Your task to perform on an android device: create a new album in the google photos Image 0: 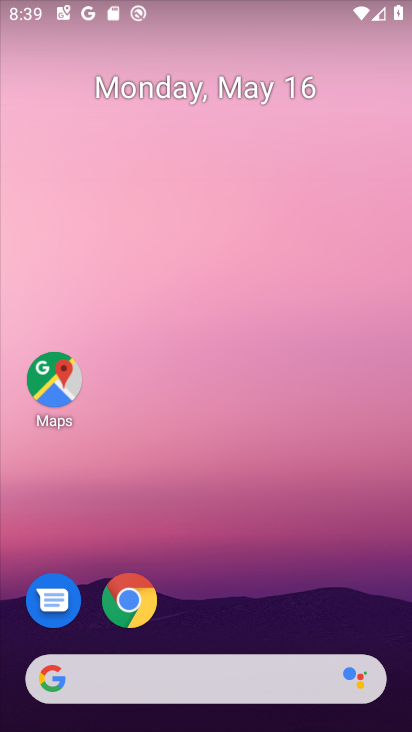
Step 0: drag from (302, 612) to (199, 2)
Your task to perform on an android device: create a new album in the google photos Image 1: 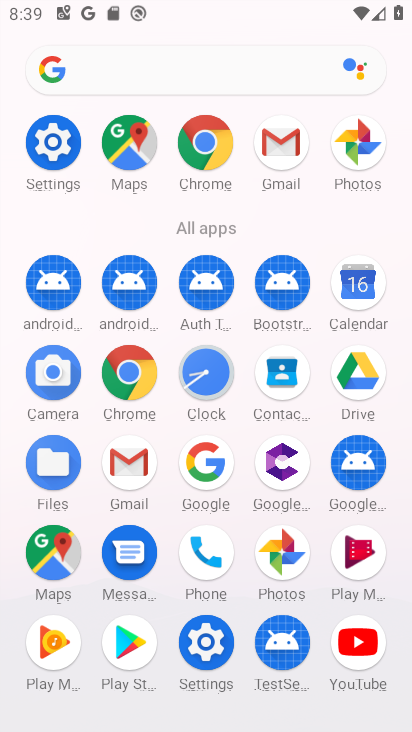
Step 1: click (278, 544)
Your task to perform on an android device: create a new album in the google photos Image 2: 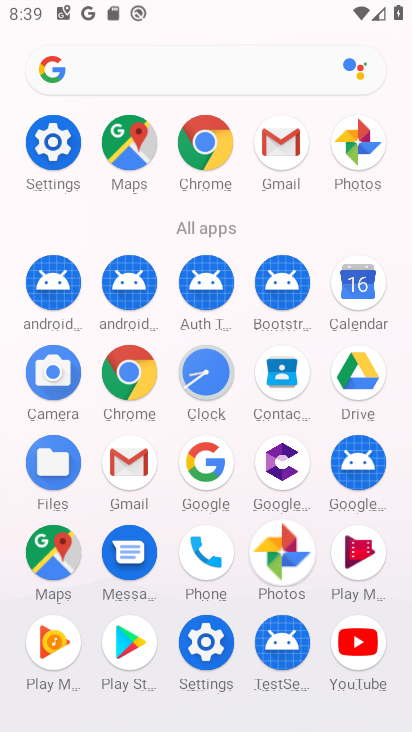
Step 2: click (278, 544)
Your task to perform on an android device: create a new album in the google photos Image 3: 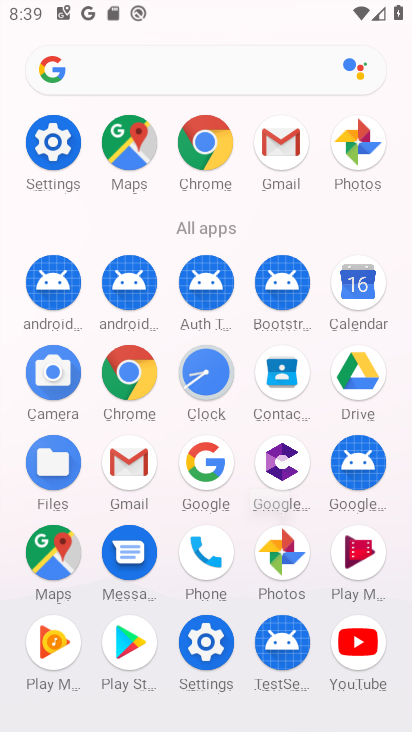
Step 3: click (279, 545)
Your task to perform on an android device: create a new album in the google photos Image 4: 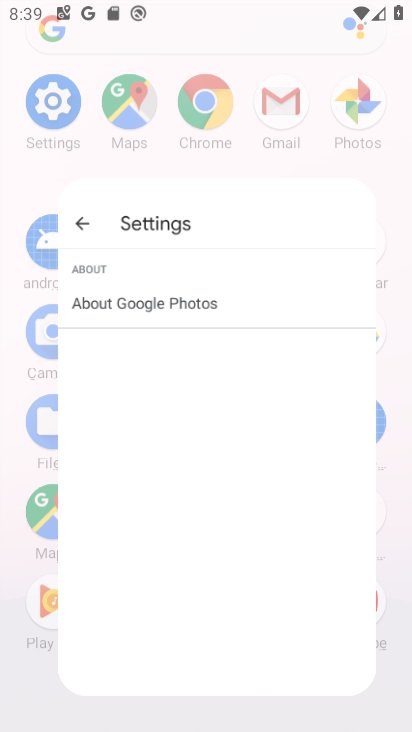
Step 4: click (279, 545)
Your task to perform on an android device: create a new album in the google photos Image 5: 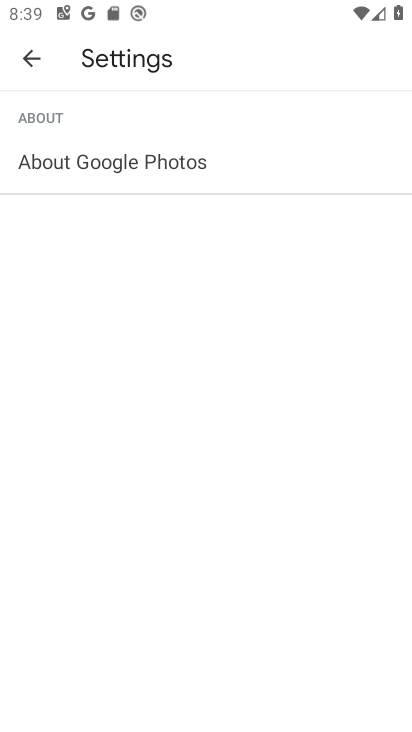
Step 5: click (25, 50)
Your task to perform on an android device: create a new album in the google photos Image 6: 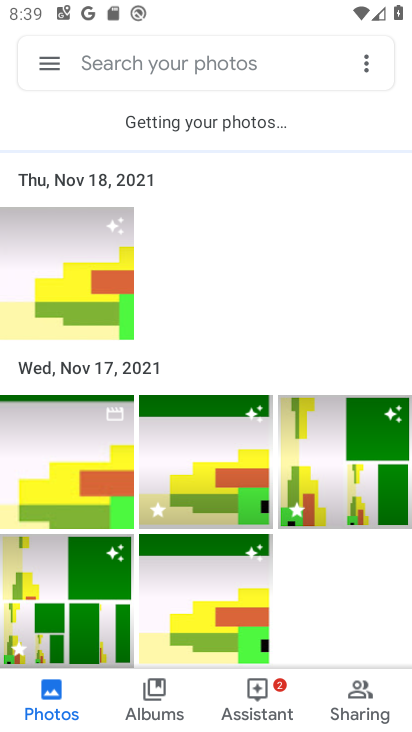
Step 6: click (366, 68)
Your task to perform on an android device: create a new album in the google photos Image 7: 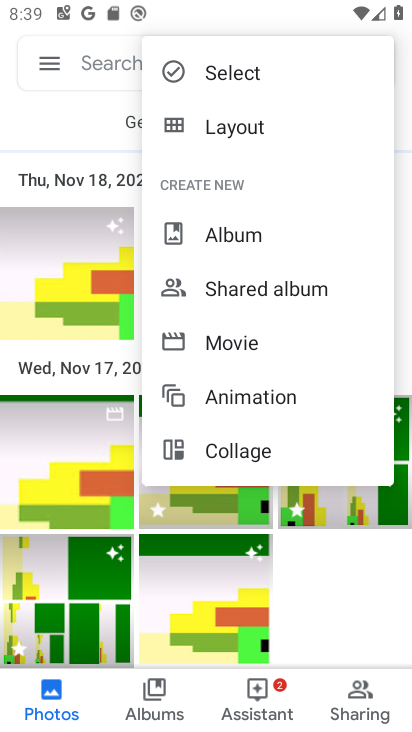
Step 7: click (233, 236)
Your task to perform on an android device: create a new album in the google photos Image 8: 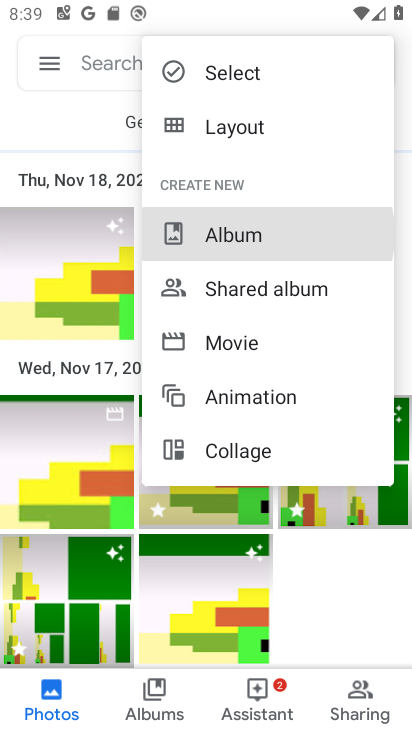
Step 8: click (234, 237)
Your task to perform on an android device: create a new album in the google photos Image 9: 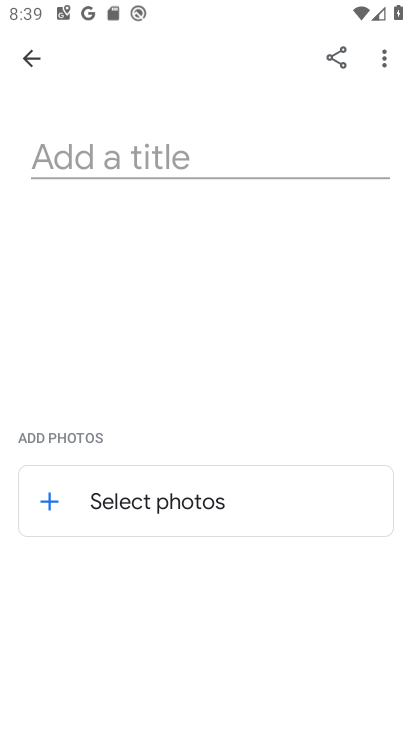
Step 9: click (75, 151)
Your task to perform on an android device: create a new album in the google photos Image 10: 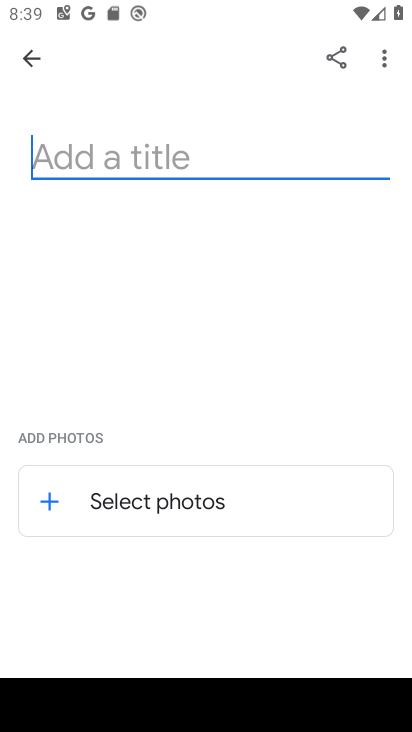
Step 10: type "bharat"
Your task to perform on an android device: create a new album in the google photos Image 11: 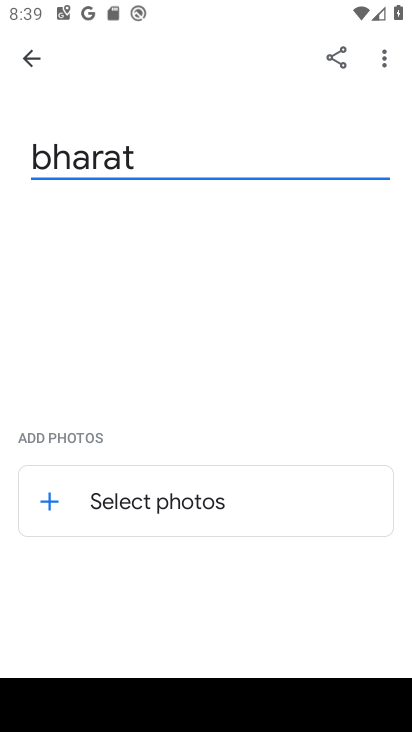
Step 11: click (103, 520)
Your task to perform on an android device: create a new album in the google photos Image 12: 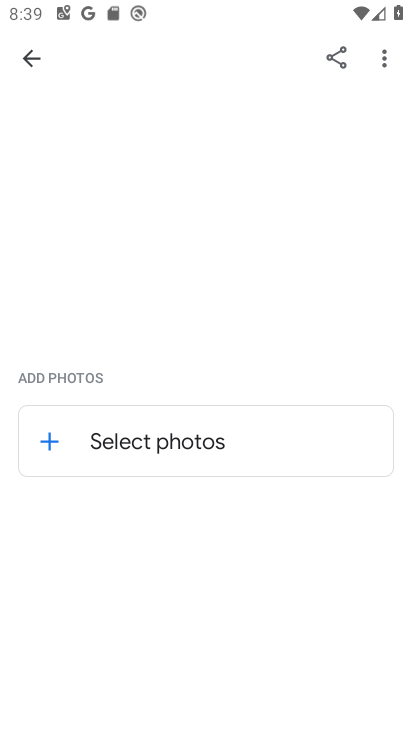
Step 12: click (136, 437)
Your task to perform on an android device: create a new album in the google photos Image 13: 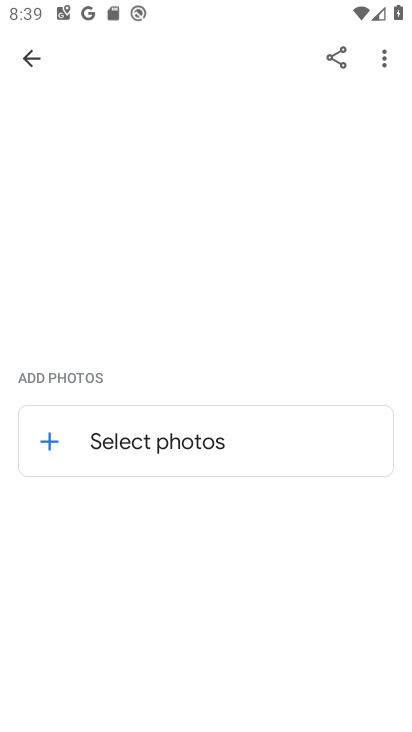
Step 13: click (136, 437)
Your task to perform on an android device: create a new album in the google photos Image 14: 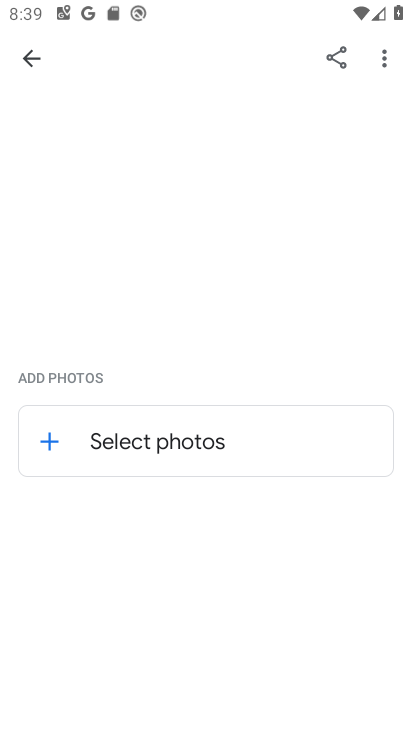
Step 14: click (136, 437)
Your task to perform on an android device: create a new album in the google photos Image 15: 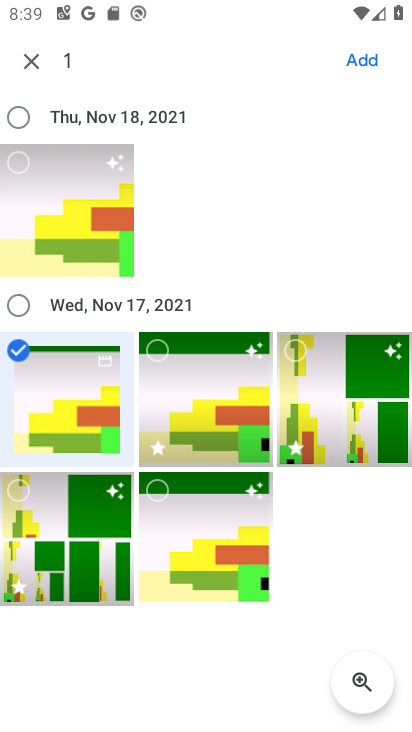
Step 15: click (163, 346)
Your task to perform on an android device: create a new album in the google photos Image 16: 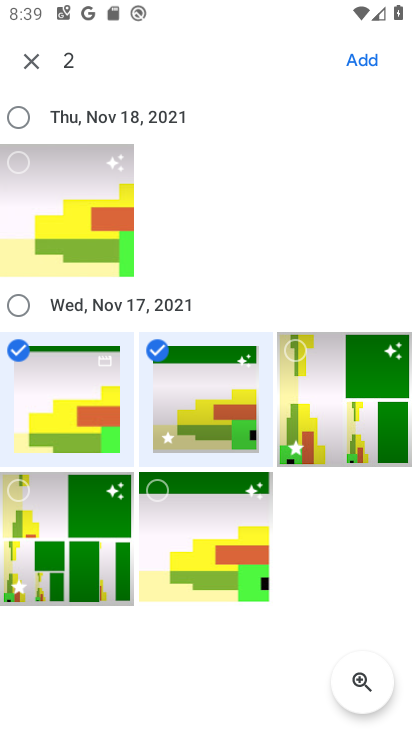
Step 16: click (303, 354)
Your task to perform on an android device: create a new album in the google photos Image 17: 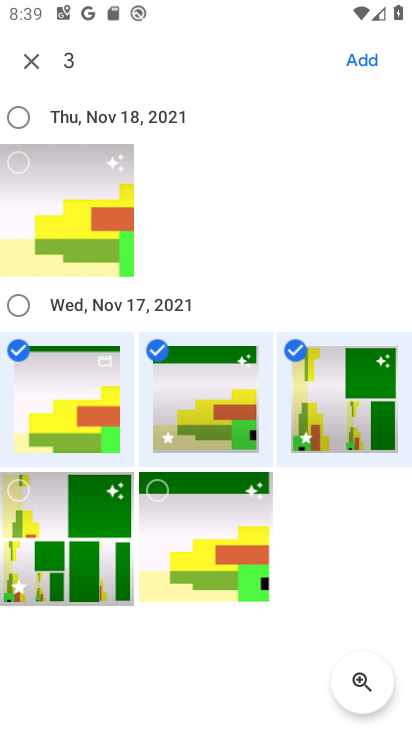
Step 17: click (355, 57)
Your task to perform on an android device: create a new album in the google photos Image 18: 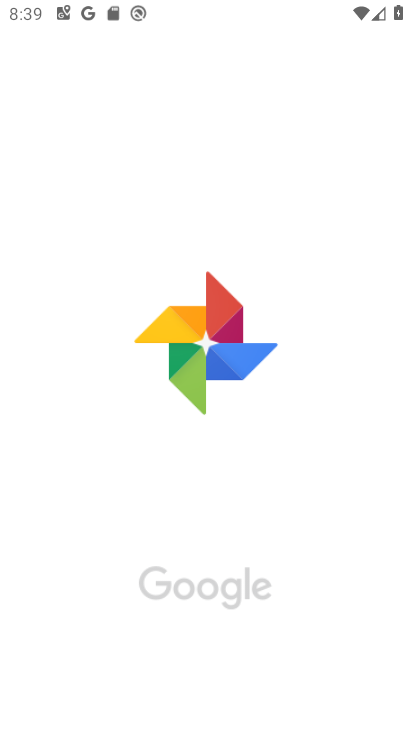
Step 18: click (355, 57)
Your task to perform on an android device: create a new album in the google photos Image 19: 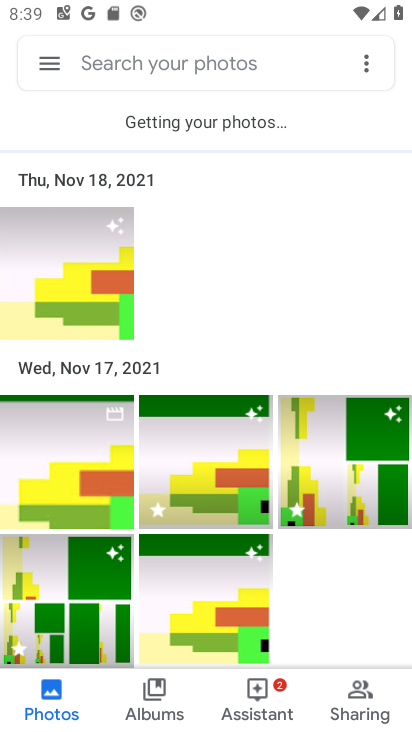
Step 19: click (84, 285)
Your task to perform on an android device: create a new album in the google photos Image 20: 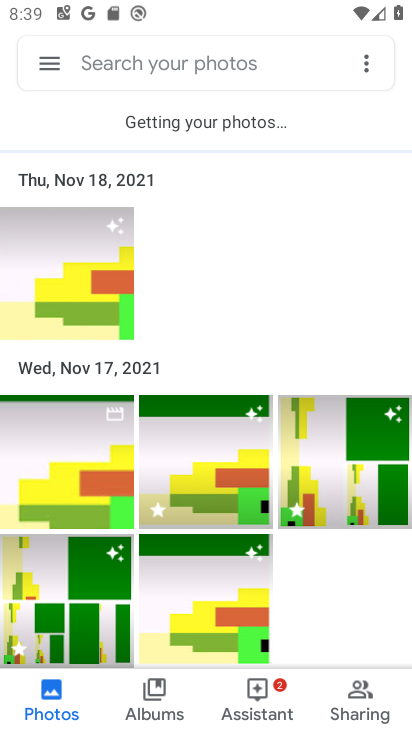
Step 20: click (84, 285)
Your task to perform on an android device: create a new album in the google photos Image 21: 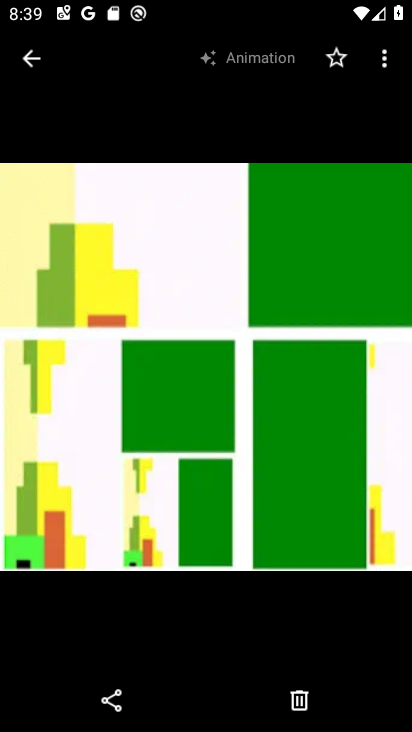
Step 21: click (153, 332)
Your task to perform on an android device: create a new album in the google photos Image 22: 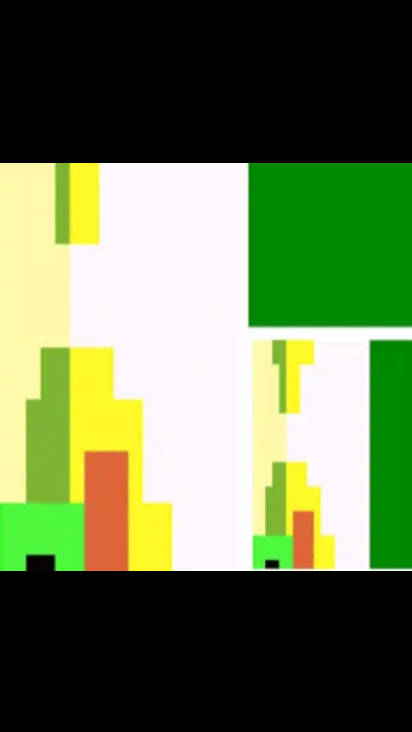
Step 22: task complete